Your task to perform on an android device: Open Google Maps Image 0: 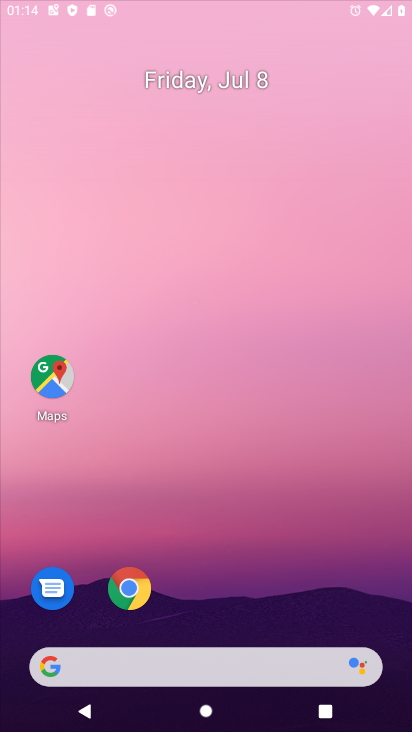
Step 0: drag from (209, 414) to (209, 119)
Your task to perform on an android device: Open Google Maps Image 1: 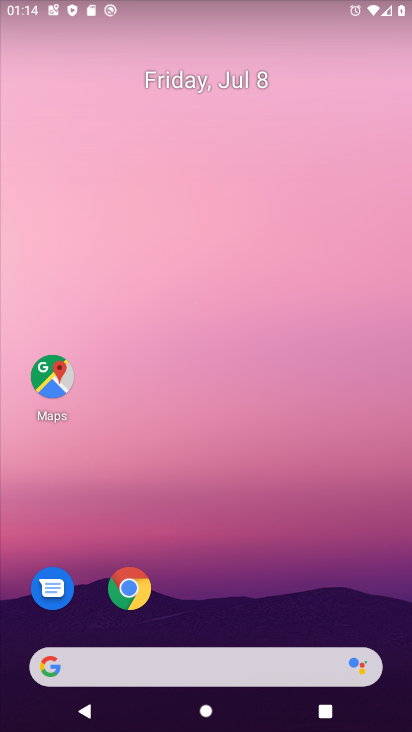
Step 1: drag from (222, 573) to (253, 25)
Your task to perform on an android device: Open Google Maps Image 2: 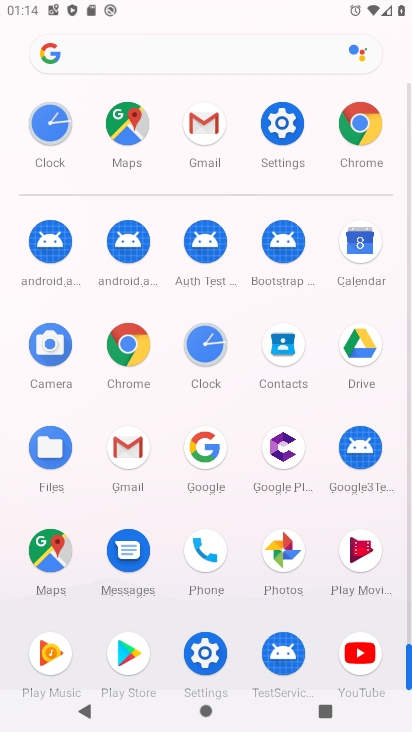
Step 2: click (40, 543)
Your task to perform on an android device: Open Google Maps Image 3: 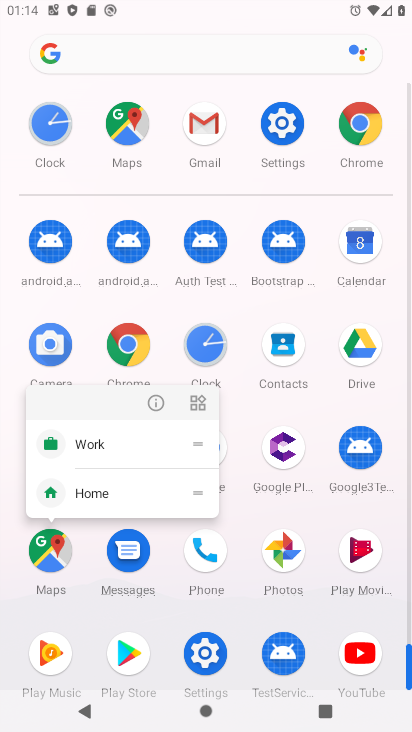
Step 3: click (161, 395)
Your task to perform on an android device: Open Google Maps Image 4: 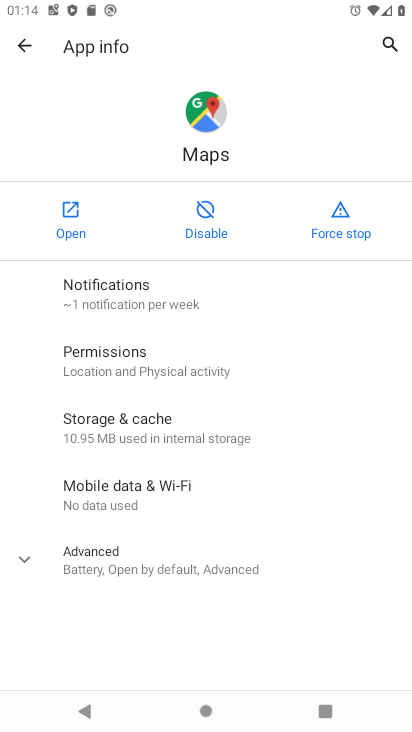
Step 4: click (62, 205)
Your task to perform on an android device: Open Google Maps Image 5: 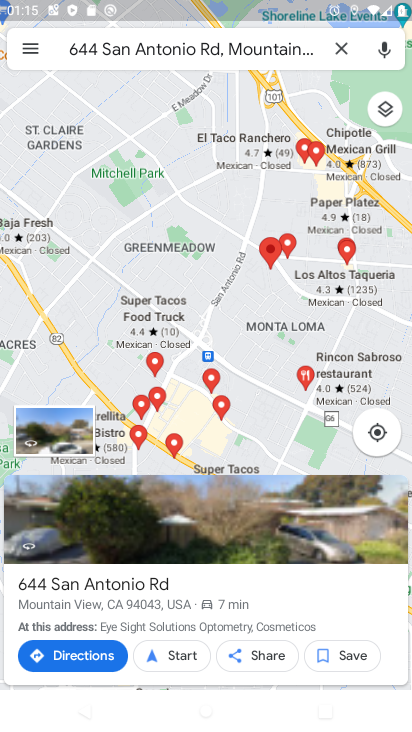
Step 5: task complete